Your task to perform on an android device: View the shopping cart on newegg. Add jbl charge 4 to the cart on newegg Image 0: 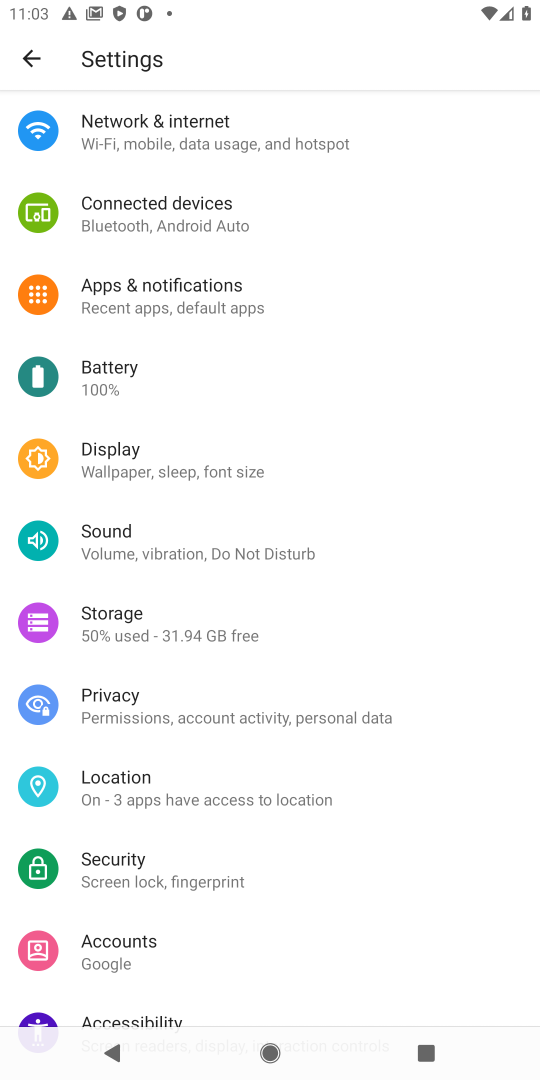
Step 0: press home button
Your task to perform on an android device: View the shopping cart on newegg. Add jbl charge 4 to the cart on newegg Image 1: 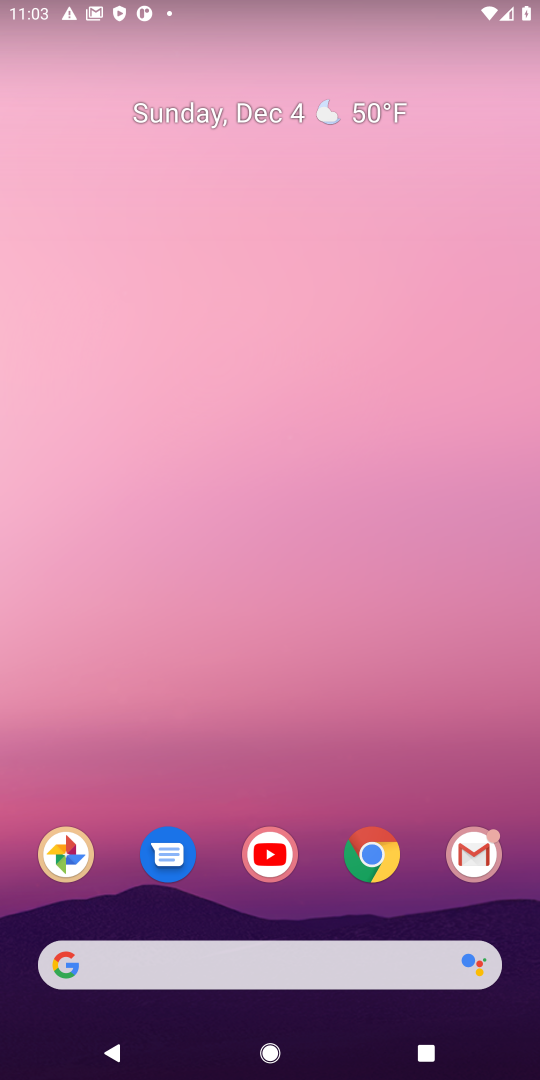
Step 1: click (267, 969)
Your task to perform on an android device: View the shopping cart on newegg. Add jbl charge 4 to the cart on newegg Image 2: 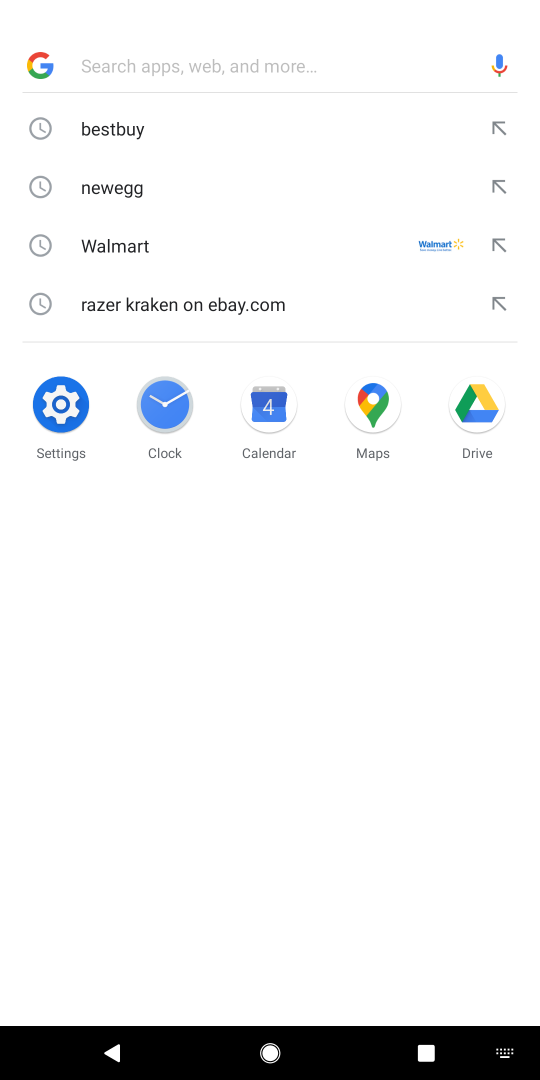
Step 2: type "newegg"
Your task to perform on an android device: View the shopping cart on newegg. Add jbl charge 4 to the cart on newegg Image 3: 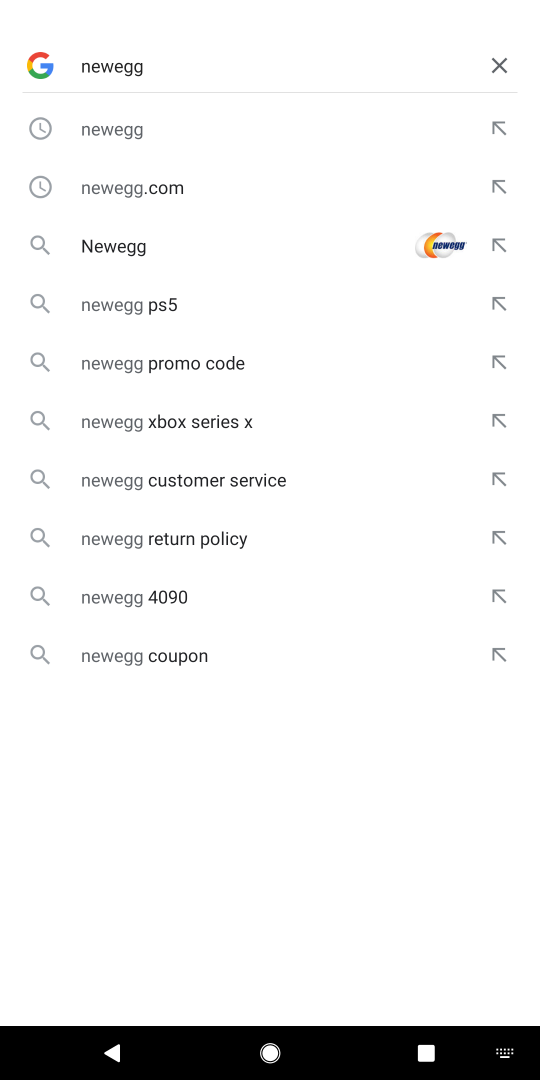
Step 3: click (205, 249)
Your task to perform on an android device: View the shopping cart on newegg. Add jbl charge 4 to the cart on newegg Image 4: 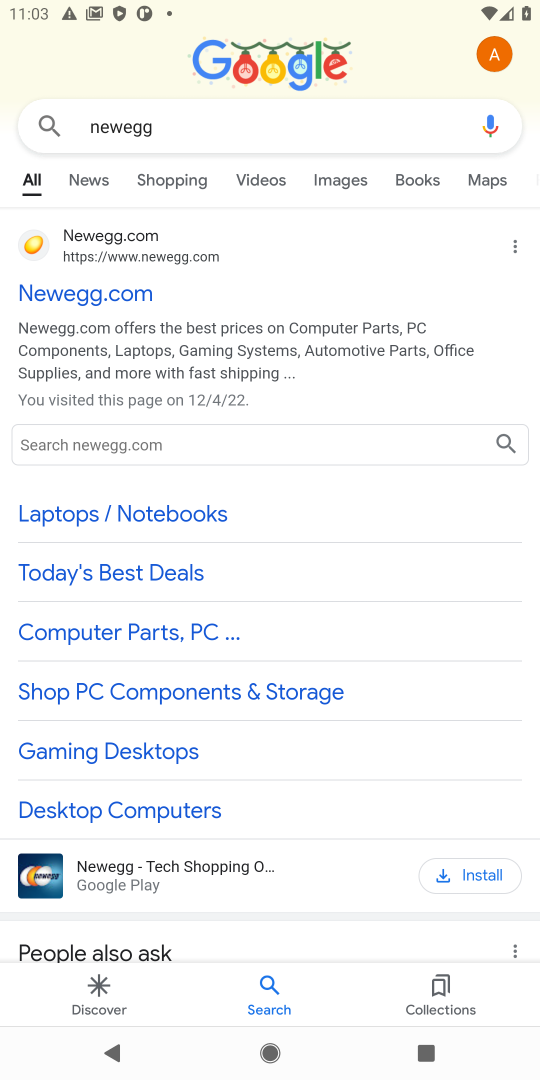
Step 4: click (138, 297)
Your task to perform on an android device: View the shopping cart on newegg. Add jbl charge 4 to the cart on newegg Image 5: 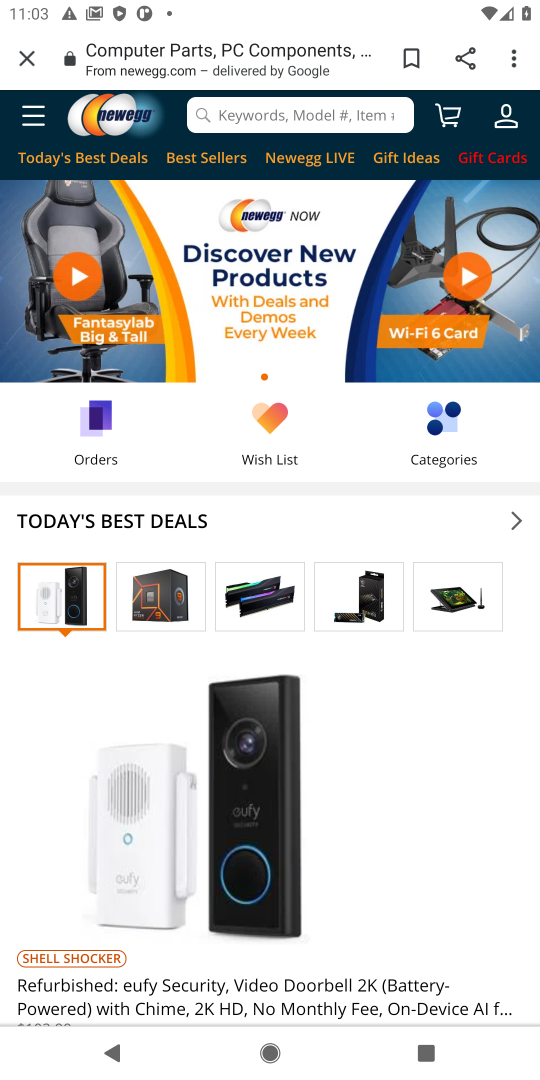
Step 5: task complete